Your task to perform on an android device: change your default location settings in chrome Image 0: 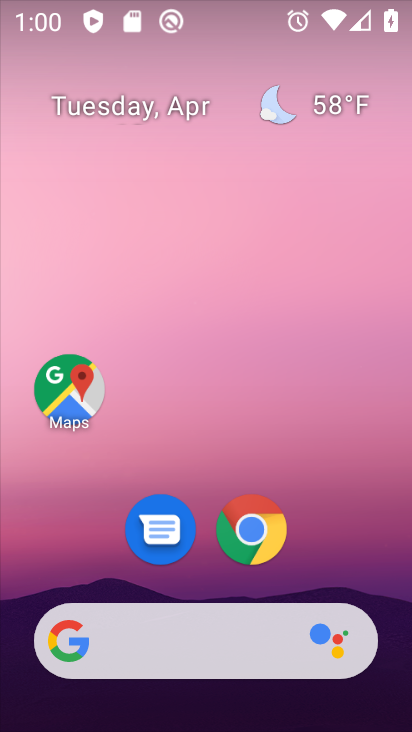
Step 0: drag from (390, 620) to (218, 34)
Your task to perform on an android device: change your default location settings in chrome Image 1: 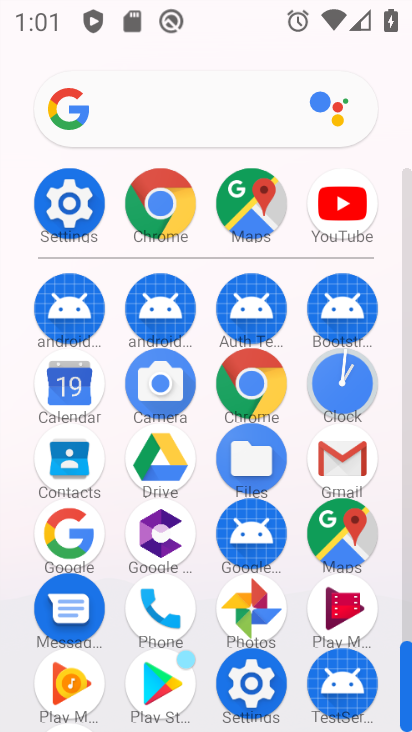
Step 1: click (225, 385)
Your task to perform on an android device: change your default location settings in chrome Image 2: 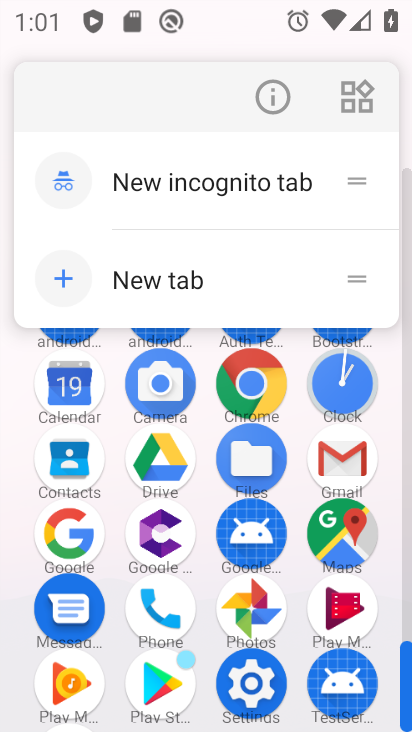
Step 2: click (226, 390)
Your task to perform on an android device: change your default location settings in chrome Image 3: 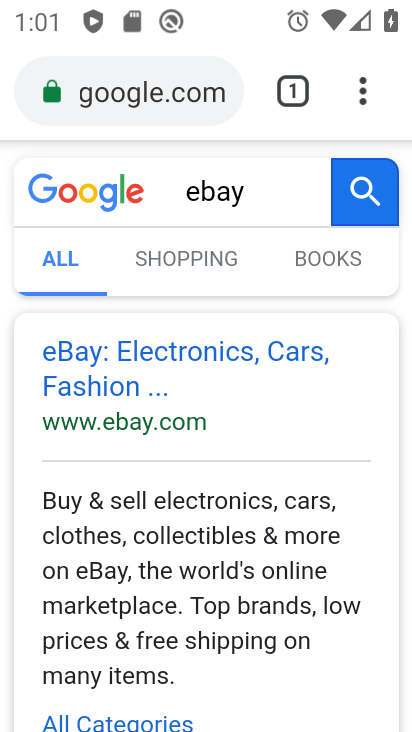
Step 3: press back button
Your task to perform on an android device: change your default location settings in chrome Image 4: 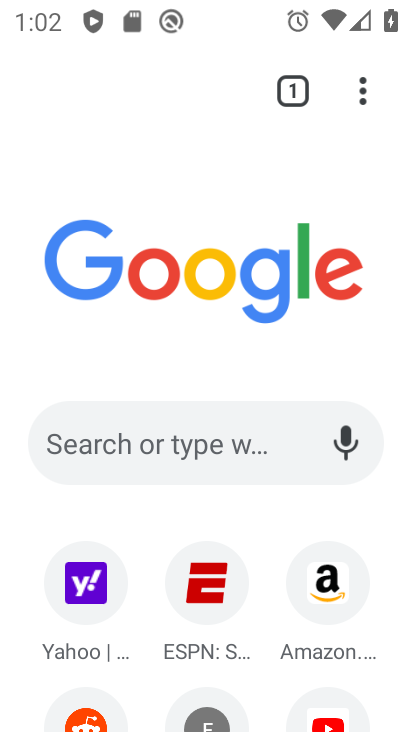
Step 4: click (372, 86)
Your task to perform on an android device: change your default location settings in chrome Image 5: 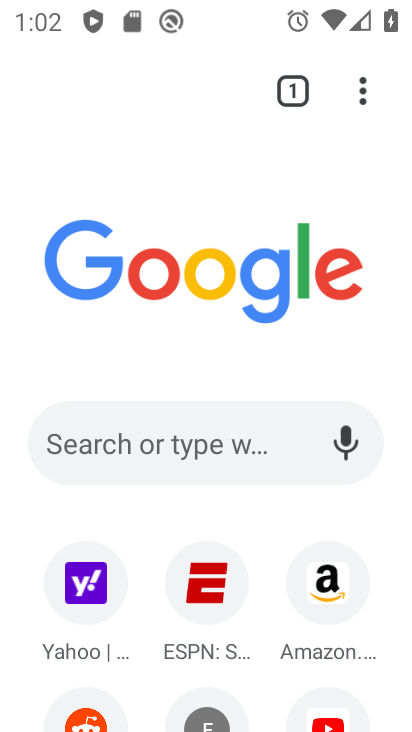
Step 5: click (372, 86)
Your task to perform on an android device: change your default location settings in chrome Image 6: 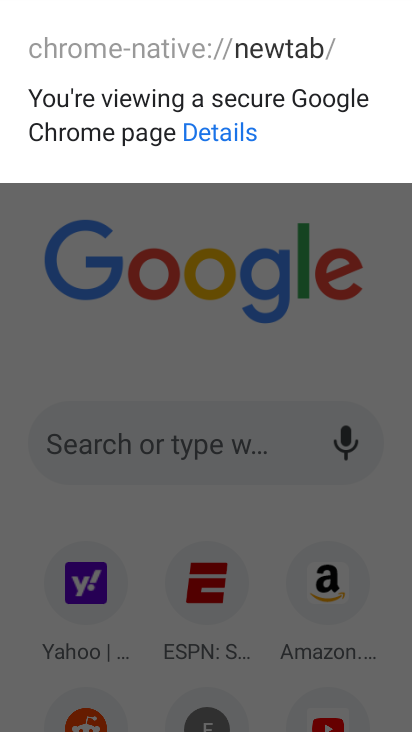
Step 6: click (311, 221)
Your task to perform on an android device: change your default location settings in chrome Image 7: 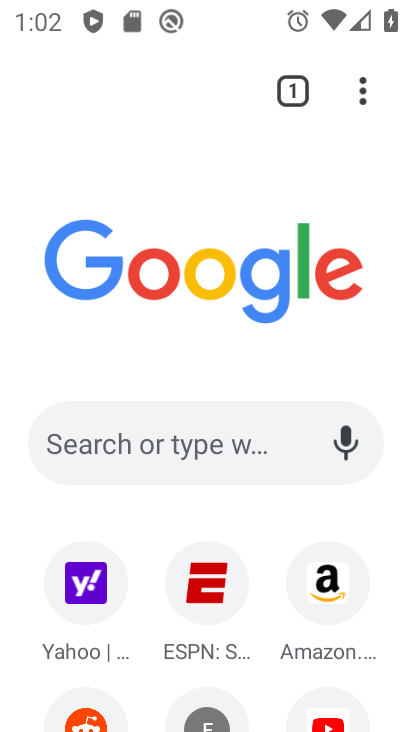
Step 7: click (356, 88)
Your task to perform on an android device: change your default location settings in chrome Image 8: 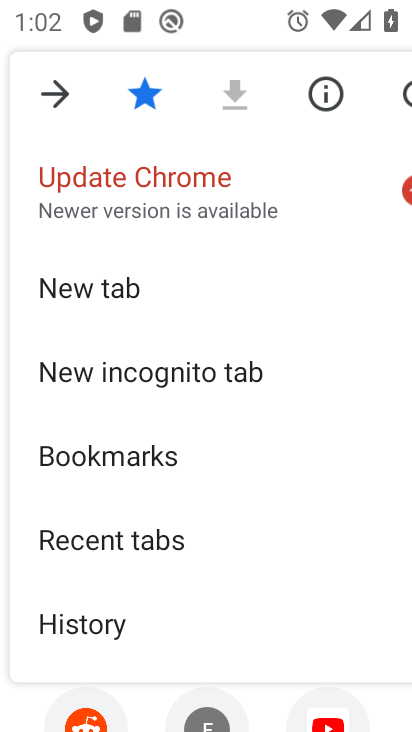
Step 8: drag from (155, 589) to (240, 147)
Your task to perform on an android device: change your default location settings in chrome Image 9: 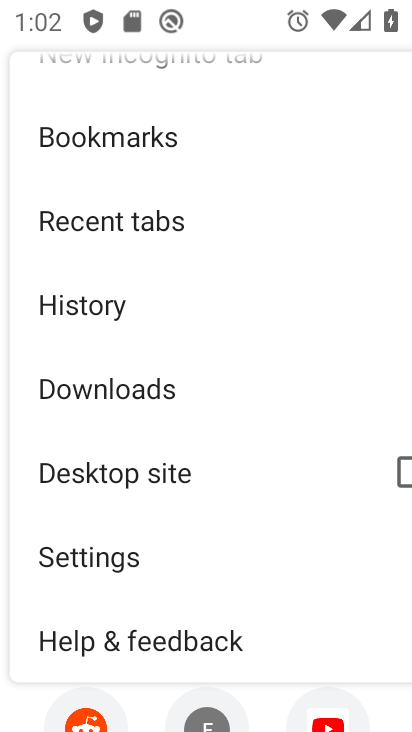
Step 9: click (164, 549)
Your task to perform on an android device: change your default location settings in chrome Image 10: 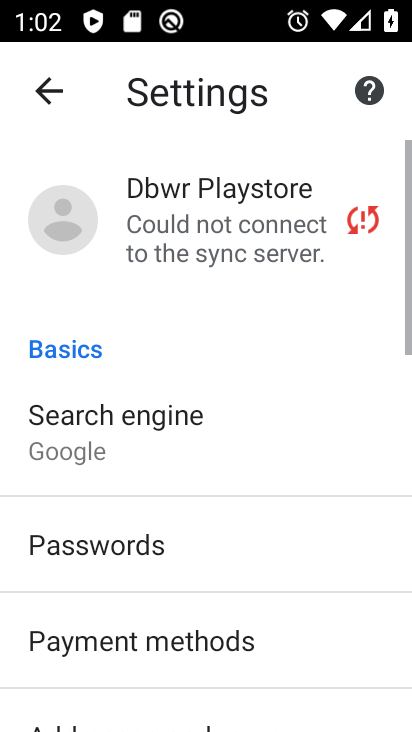
Step 10: click (168, 449)
Your task to perform on an android device: change your default location settings in chrome Image 11: 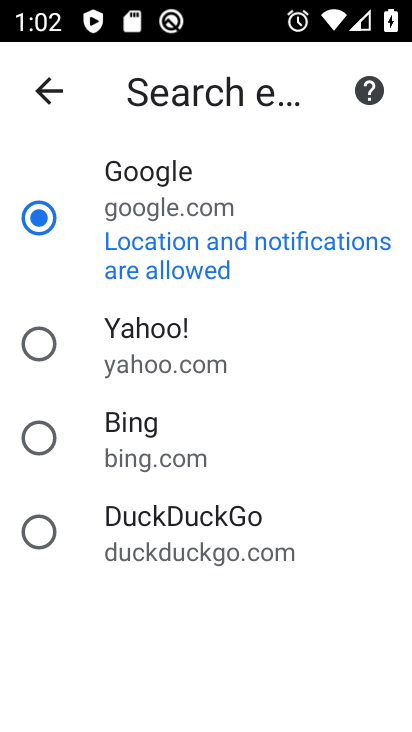
Step 11: click (146, 359)
Your task to perform on an android device: change your default location settings in chrome Image 12: 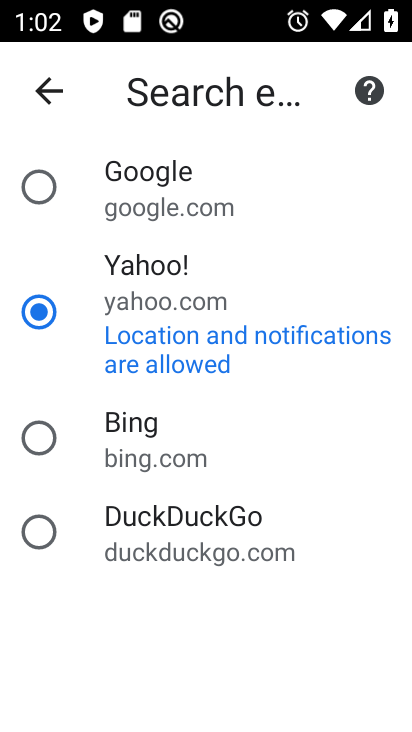
Step 12: task complete